Your task to perform on an android device: star an email in the gmail app Image 0: 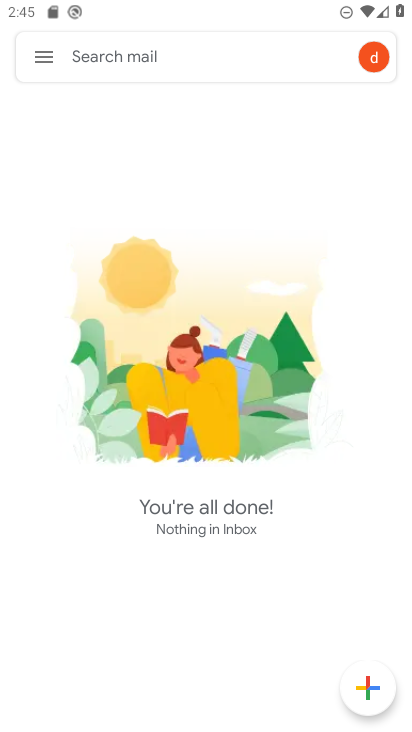
Step 0: press home button
Your task to perform on an android device: star an email in the gmail app Image 1: 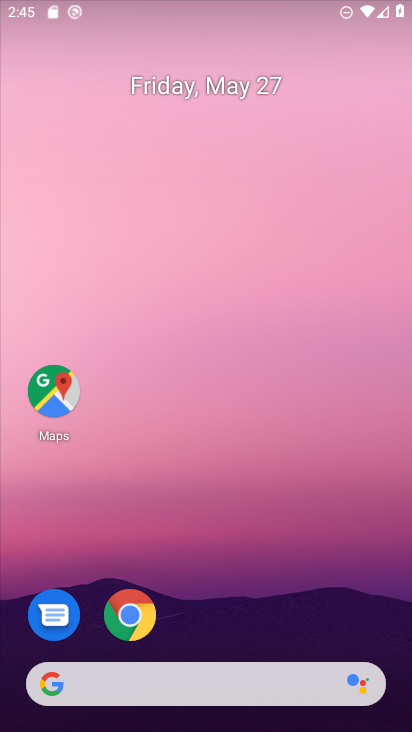
Step 1: drag from (240, 525) to (173, 17)
Your task to perform on an android device: star an email in the gmail app Image 2: 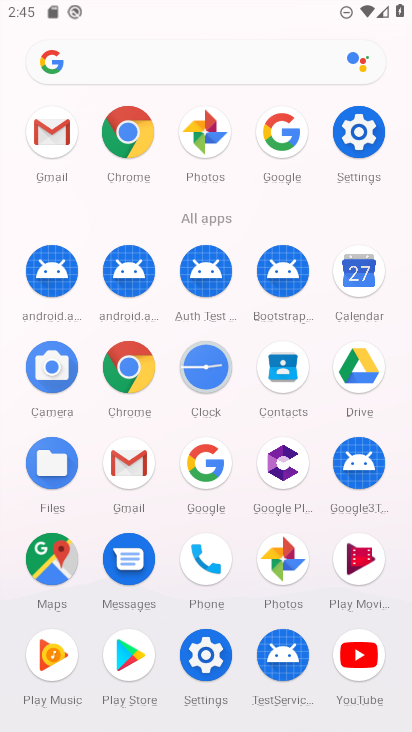
Step 2: click (120, 469)
Your task to perform on an android device: star an email in the gmail app Image 3: 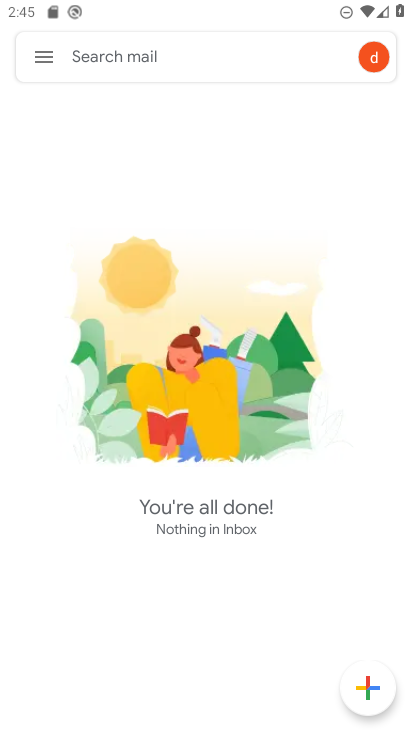
Step 3: click (49, 55)
Your task to perform on an android device: star an email in the gmail app Image 4: 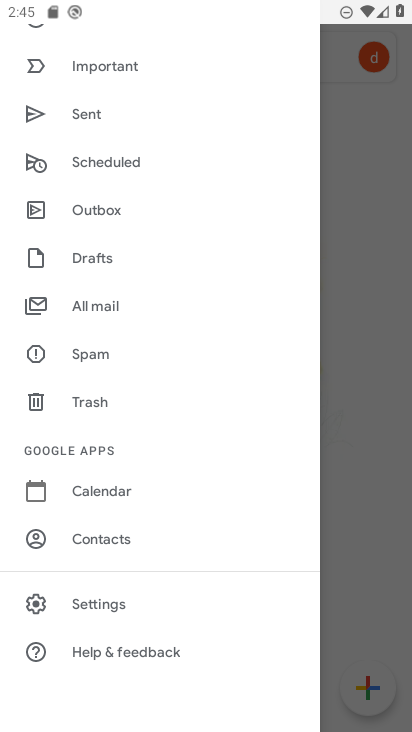
Step 4: click (139, 304)
Your task to perform on an android device: star an email in the gmail app Image 5: 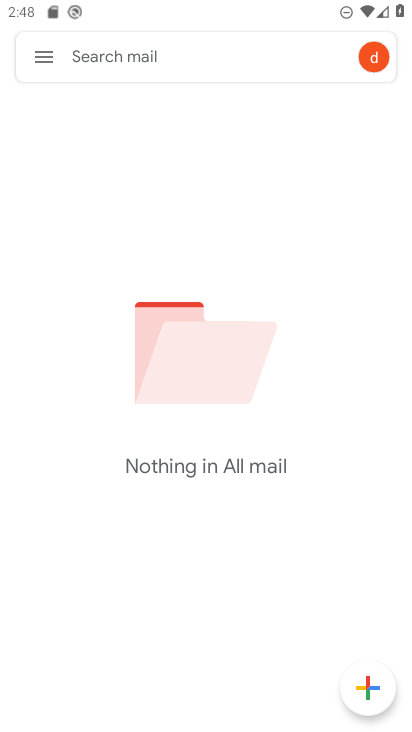
Step 5: task complete